Your task to perform on an android device: Go to location settings Image 0: 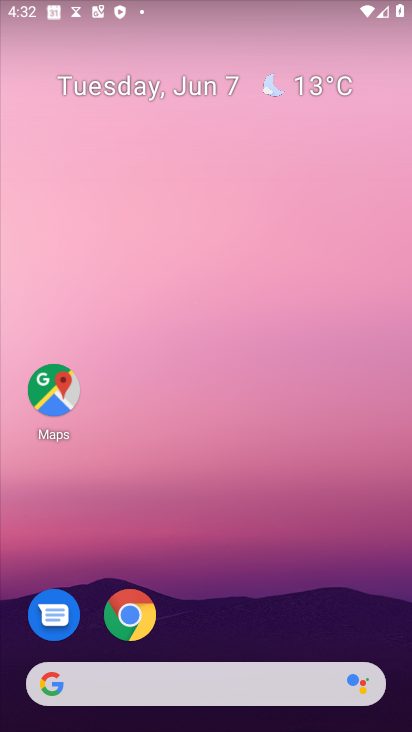
Step 0: drag from (249, 689) to (180, 317)
Your task to perform on an android device: Go to location settings Image 1: 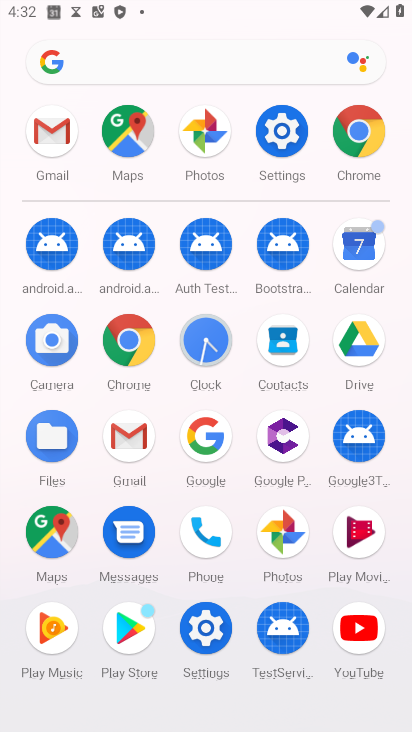
Step 1: click (206, 626)
Your task to perform on an android device: Go to location settings Image 2: 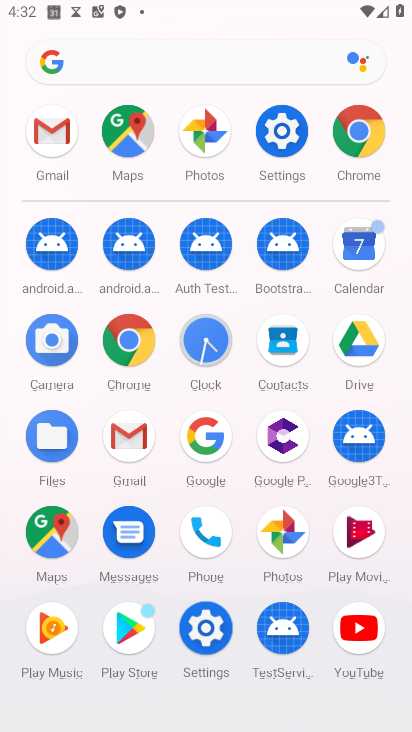
Step 2: click (206, 626)
Your task to perform on an android device: Go to location settings Image 3: 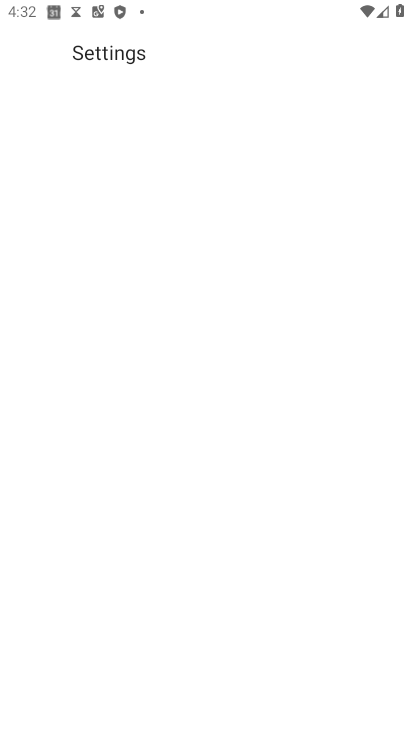
Step 3: click (206, 626)
Your task to perform on an android device: Go to location settings Image 4: 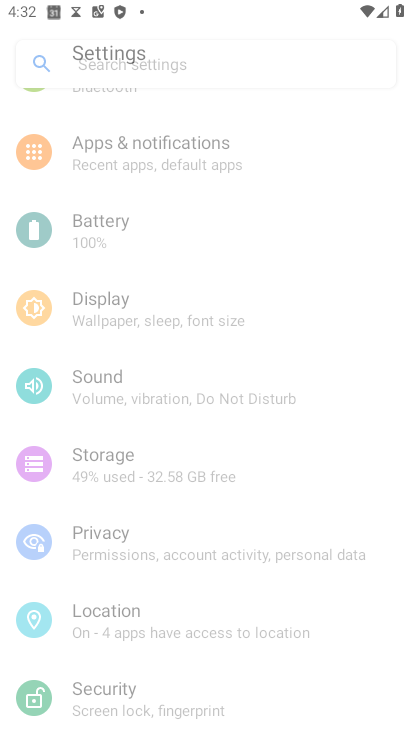
Step 4: click (206, 626)
Your task to perform on an android device: Go to location settings Image 5: 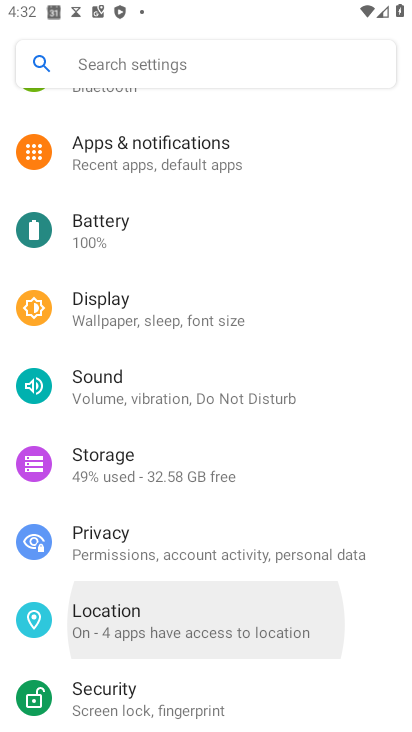
Step 5: click (206, 626)
Your task to perform on an android device: Go to location settings Image 6: 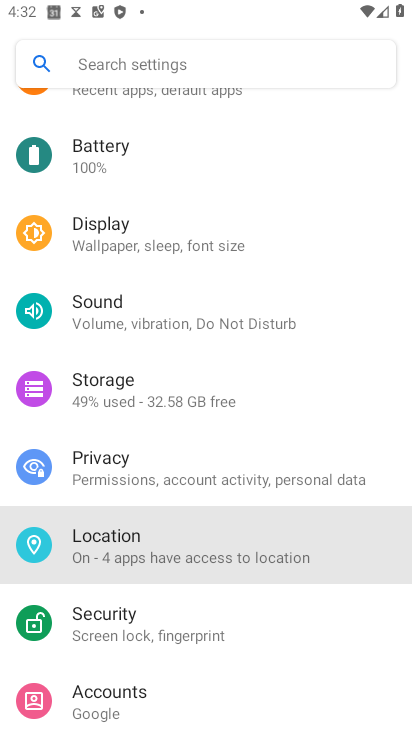
Step 6: click (205, 626)
Your task to perform on an android device: Go to location settings Image 7: 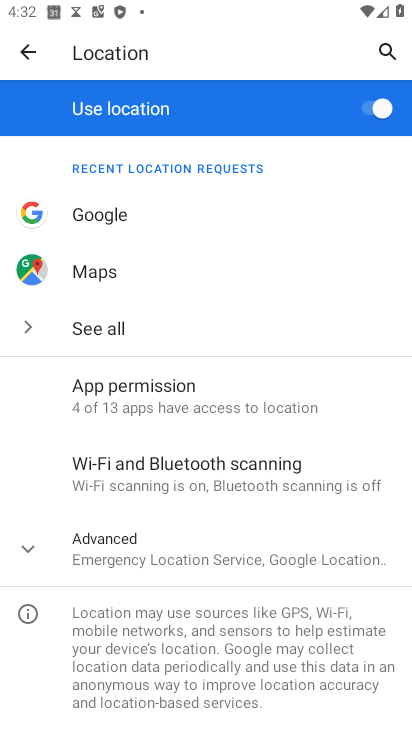
Step 7: task complete